Your task to perform on an android device: Open Youtube and go to "Your channel" Image 0: 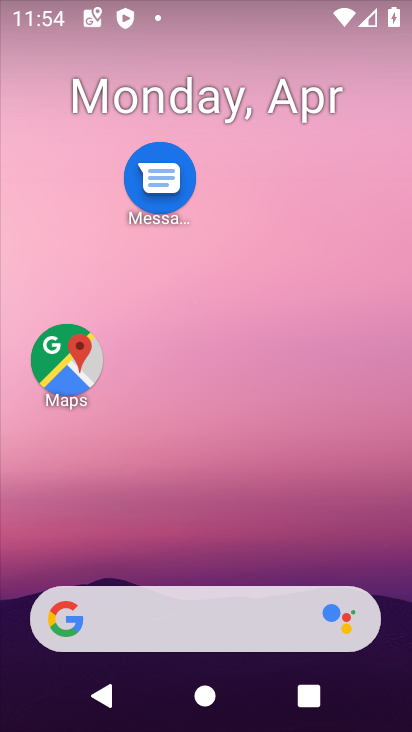
Step 0: drag from (209, 718) to (199, 62)
Your task to perform on an android device: Open Youtube and go to "Your channel" Image 1: 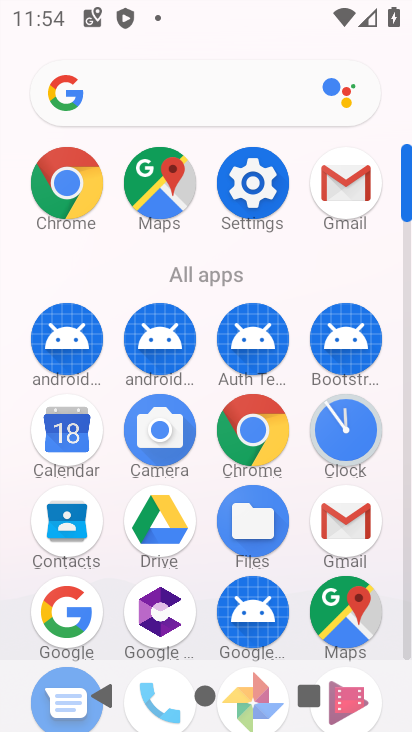
Step 1: drag from (204, 647) to (207, 180)
Your task to perform on an android device: Open Youtube and go to "Your channel" Image 2: 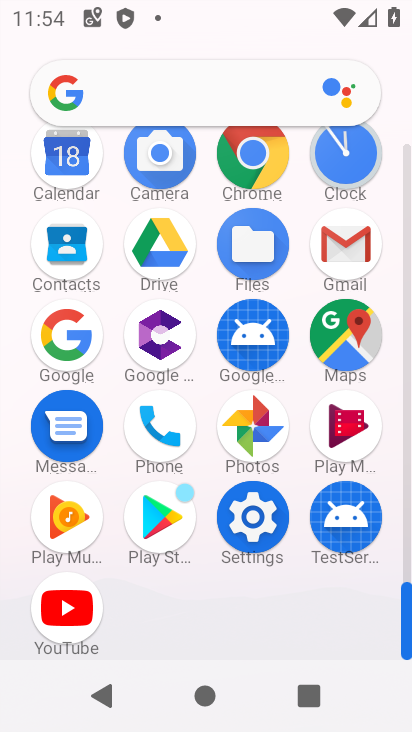
Step 2: click (74, 605)
Your task to perform on an android device: Open Youtube and go to "Your channel" Image 3: 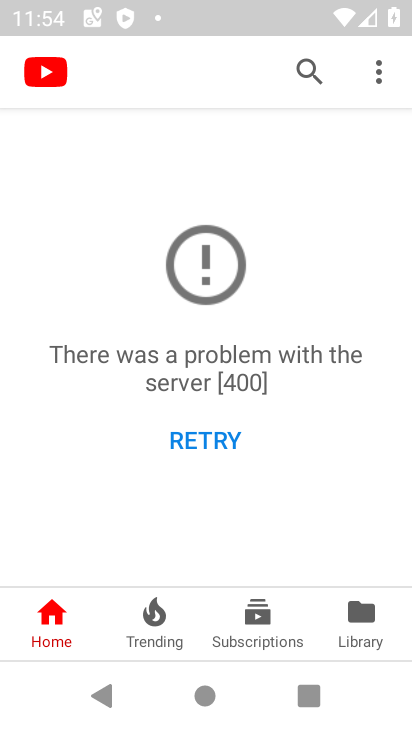
Step 3: click (370, 617)
Your task to perform on an android device: Open Youtube and go to "Your channel" Image 4: 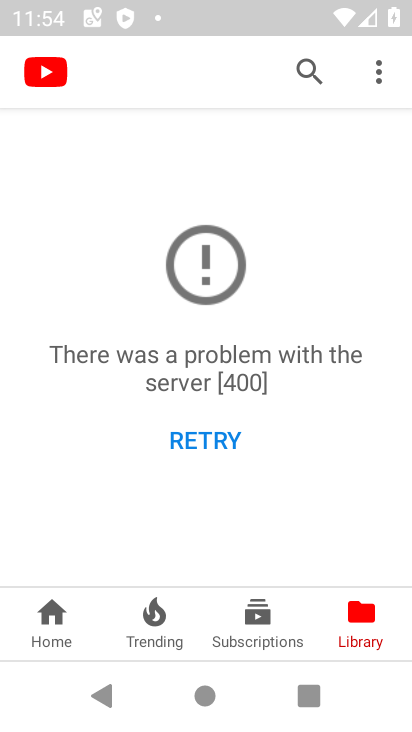
Step 4: click (260, 620)
Your task to perform on an android device: Open Youtube and go to "Your channel" Image 5: 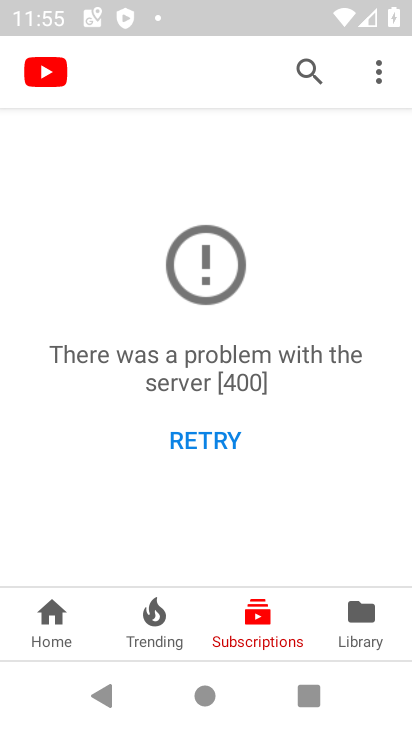
Step 5: task complete